Your task to perform on an android device: install app "DoorDash - Dasher" Image 0: 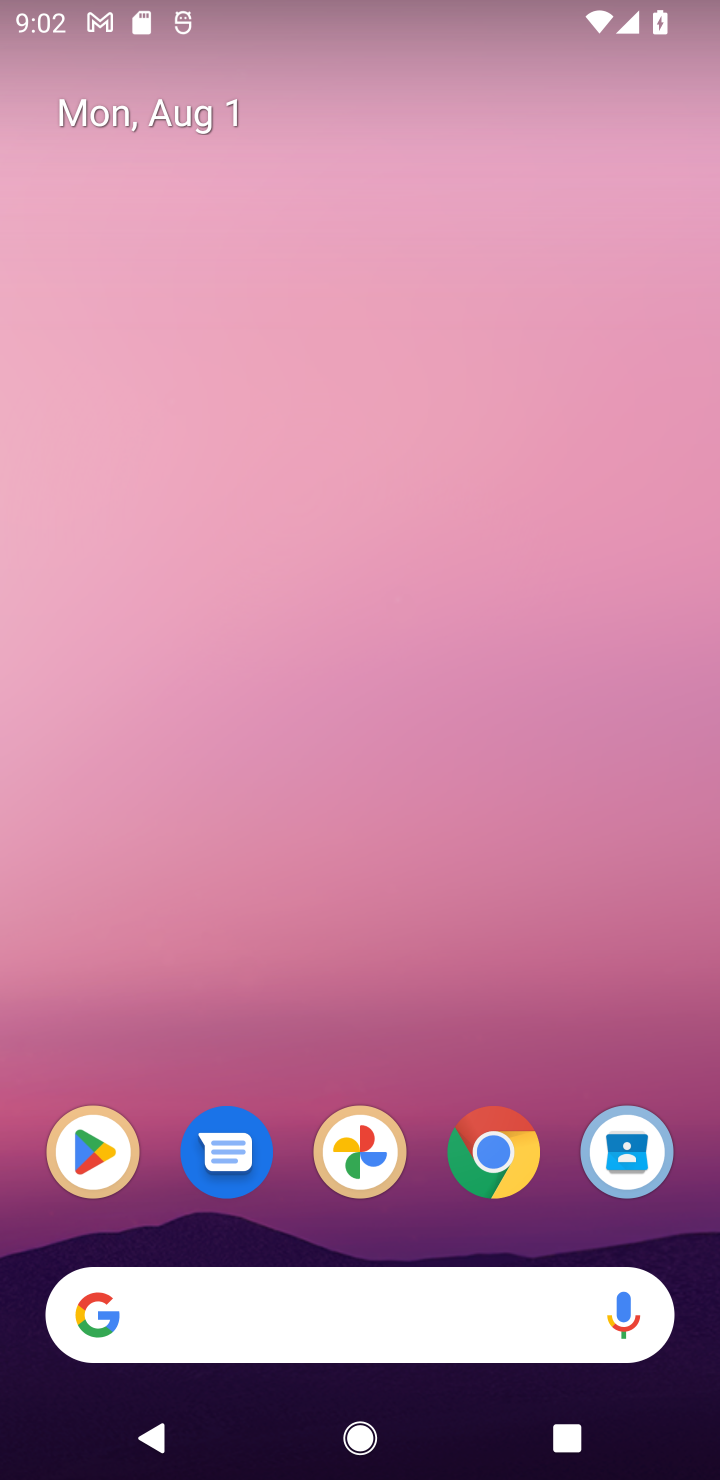
Step 0: drag from (319, 1274) to (218, 77)
Your task to perform on an android device: install app "DoorDash - Dasher" Image 1: 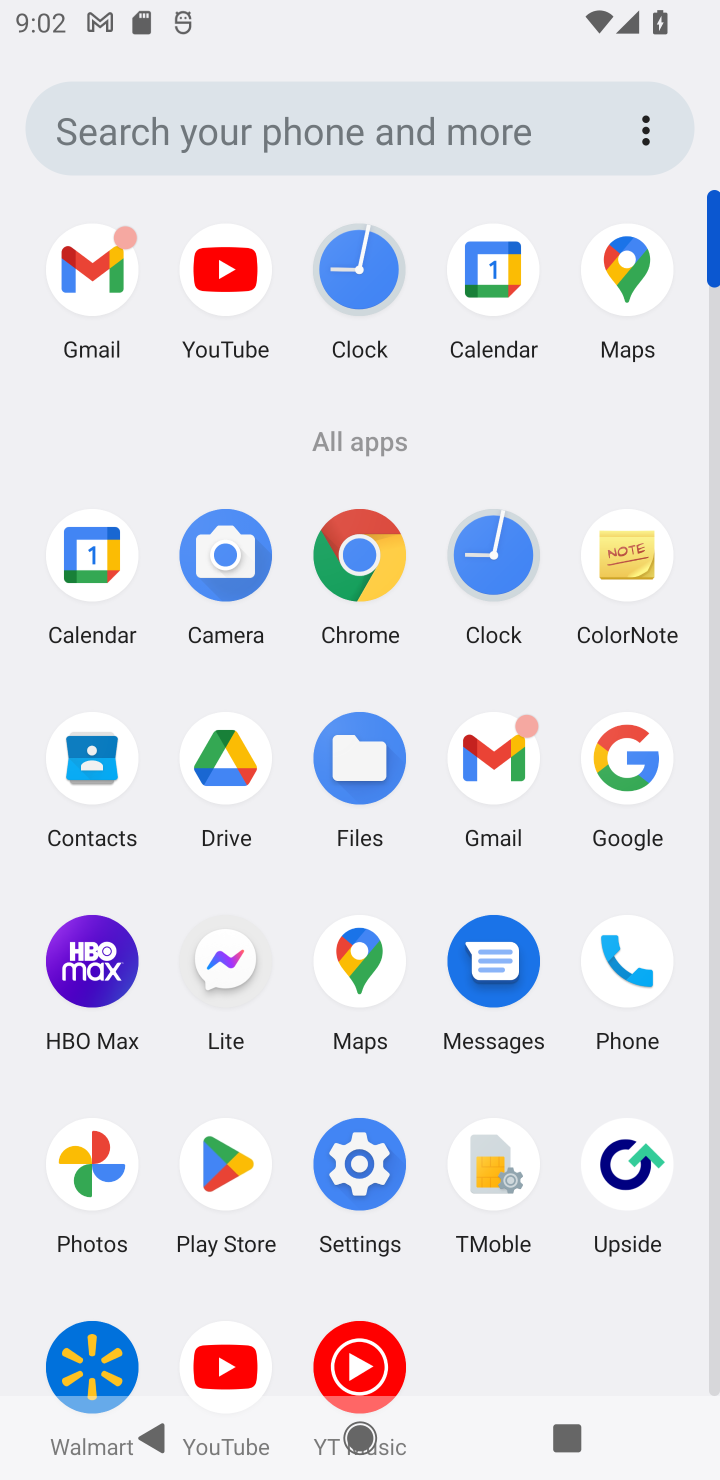
Step 1: click (217, 1207)
Your task to perform on an android device: install app "DoorDash - Dasher" Image 2: 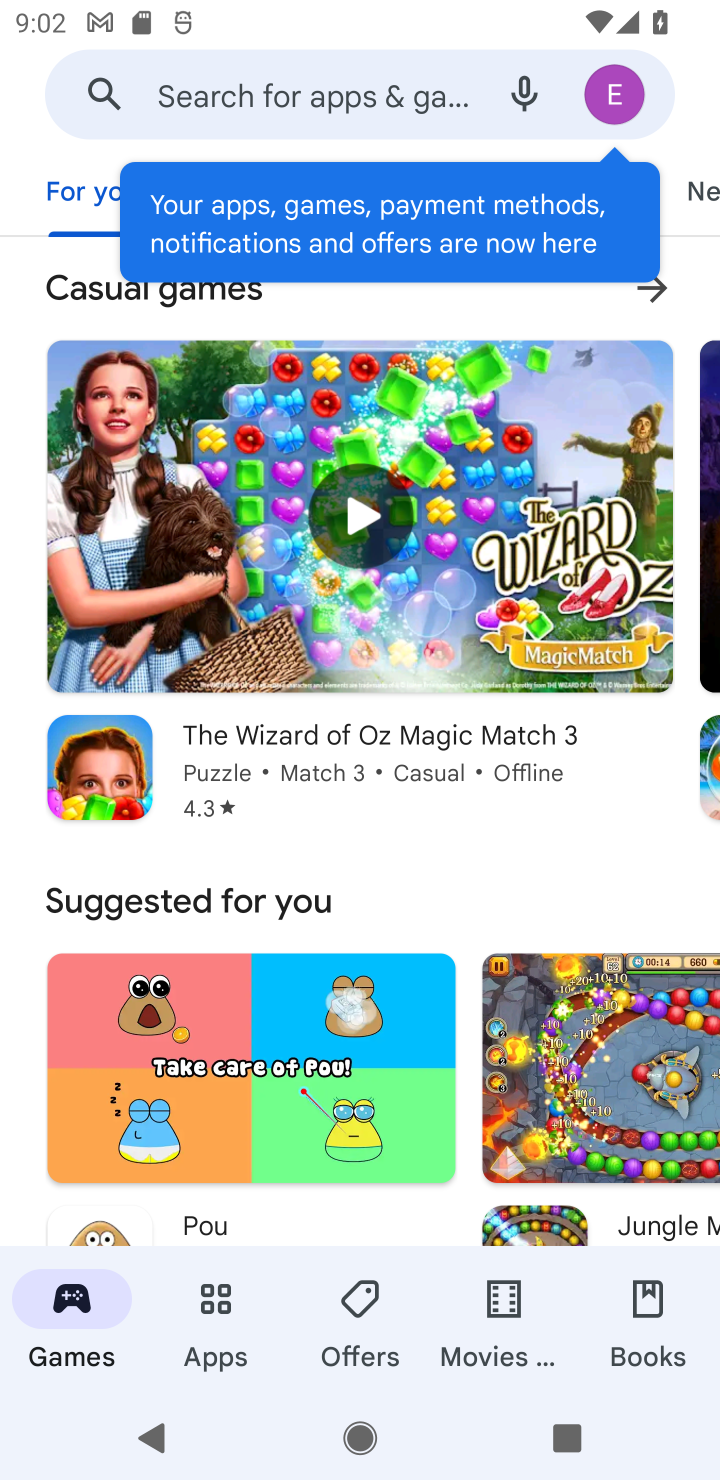
Step 2: click (326, 71)
Your task to perform on an android device: install app "DoorDash - Dasher" Image 3: 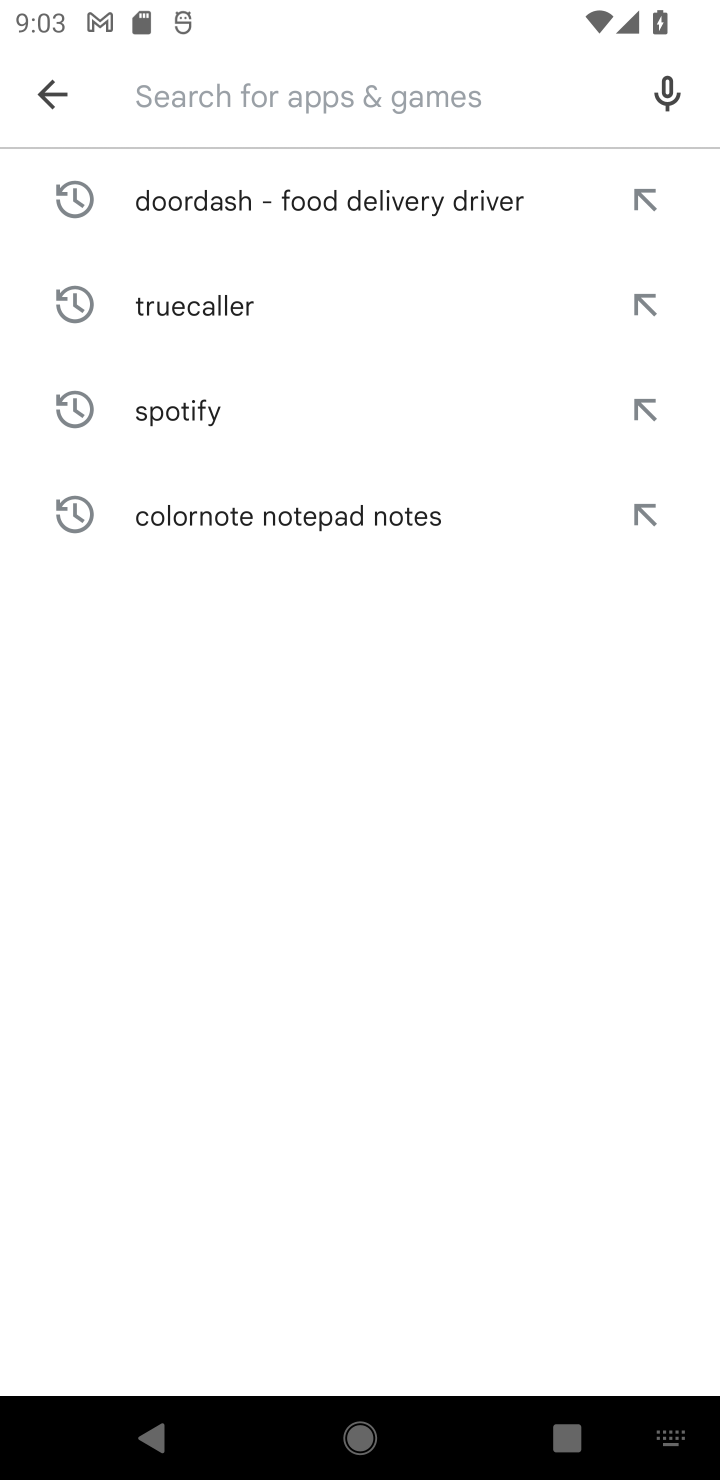
Step 3: click (187, 227)
Your task to perform on an android device: install app "DoorDash - Dasher" Image 4: 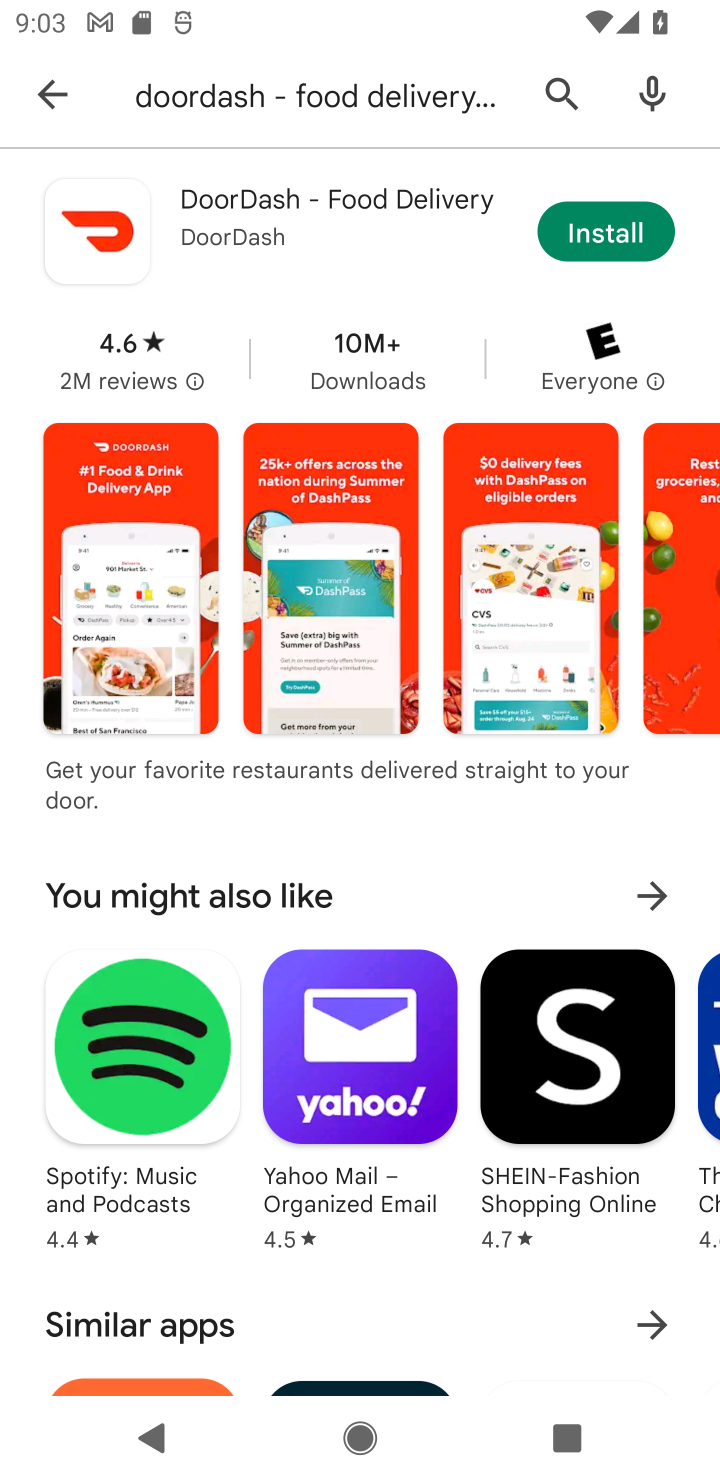
Step 4: click (600, 238)
Your task to perform on an android device: install app "DoorDash - Dasher" Image 5: 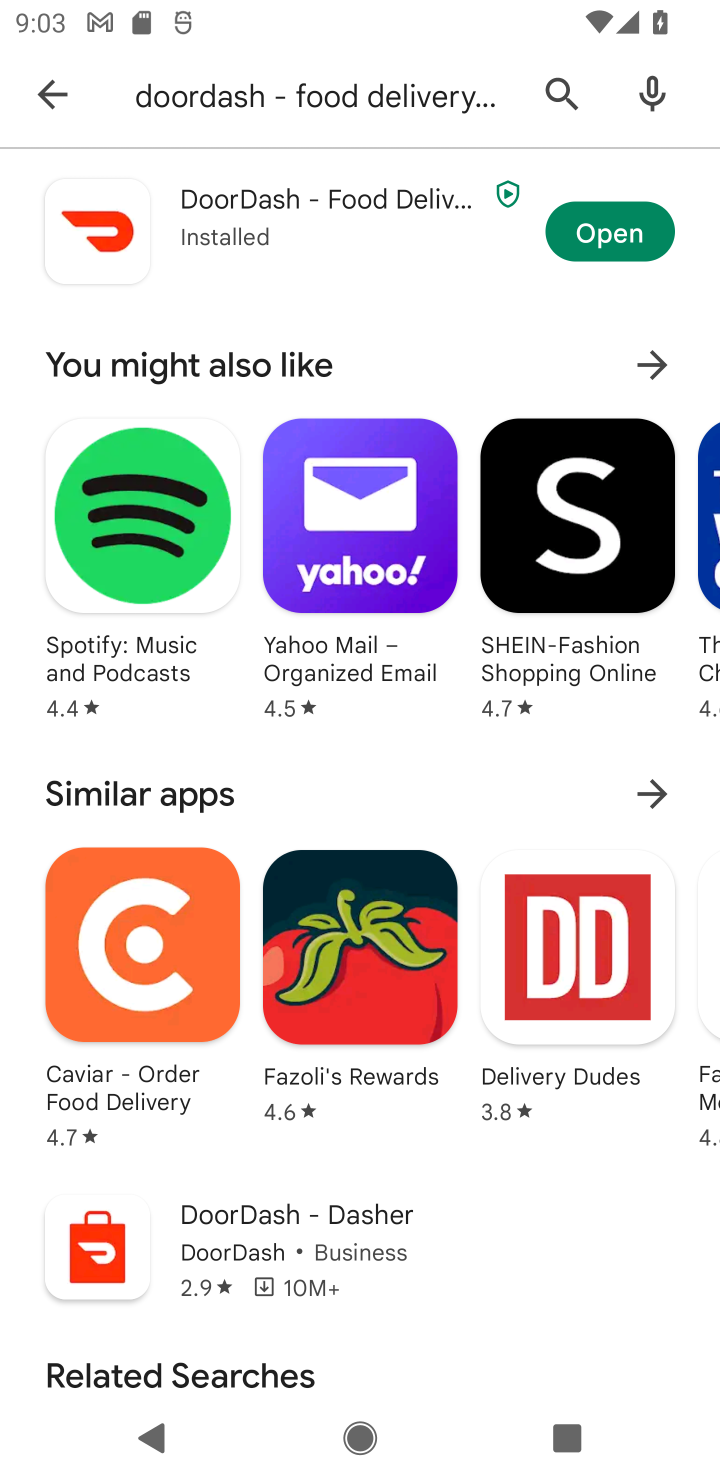
Step 5: task complete